Your task to perform on an android device: open app "DoorDash - Dasher" (install if not already installed) and enter user name: "resistor@inbox.com" and password: "cholera" Image 0: 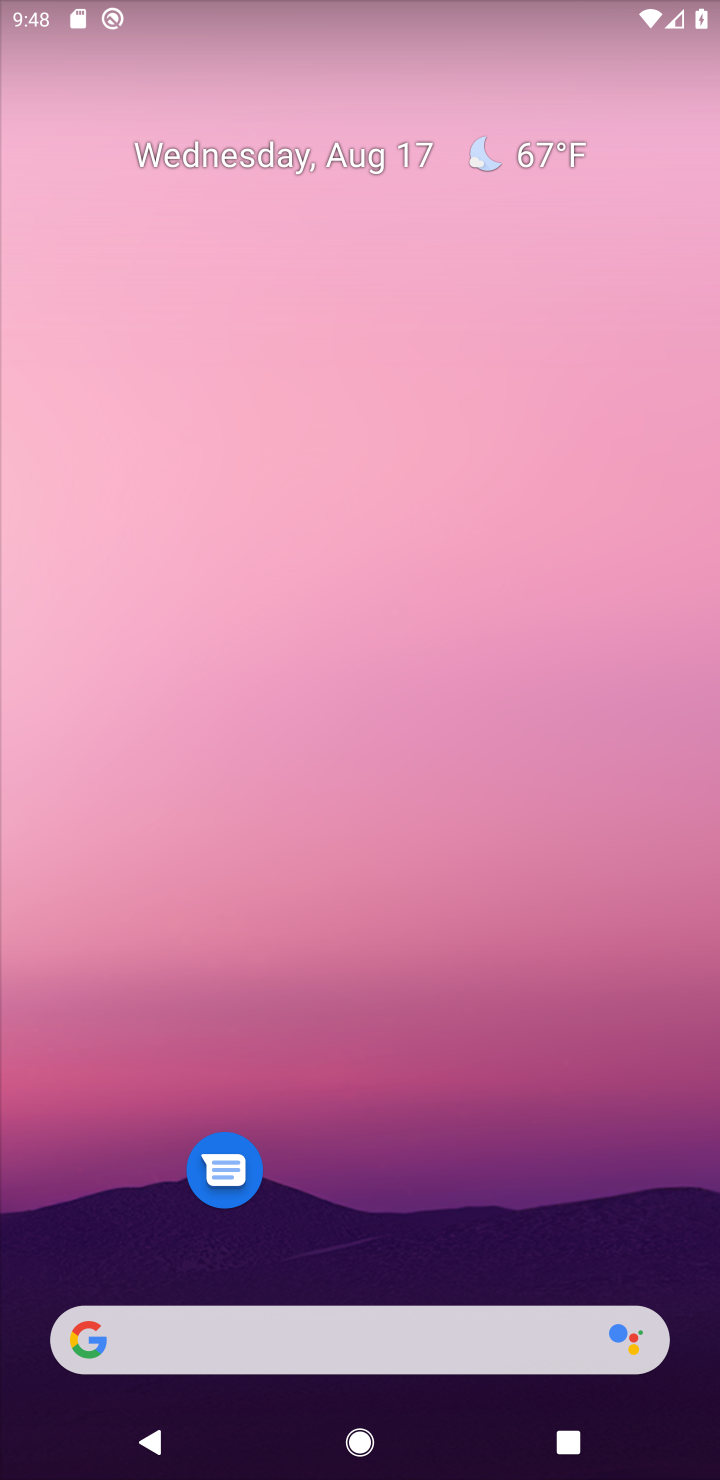
Step 0: drag from (306, 1287) to (302, 100)
Your task to perform on an android device: open app "DoorDash - Dasher" (install if not already installed) and enter user name: "resistor@inbox.com" and password: "cholera" Image 1: 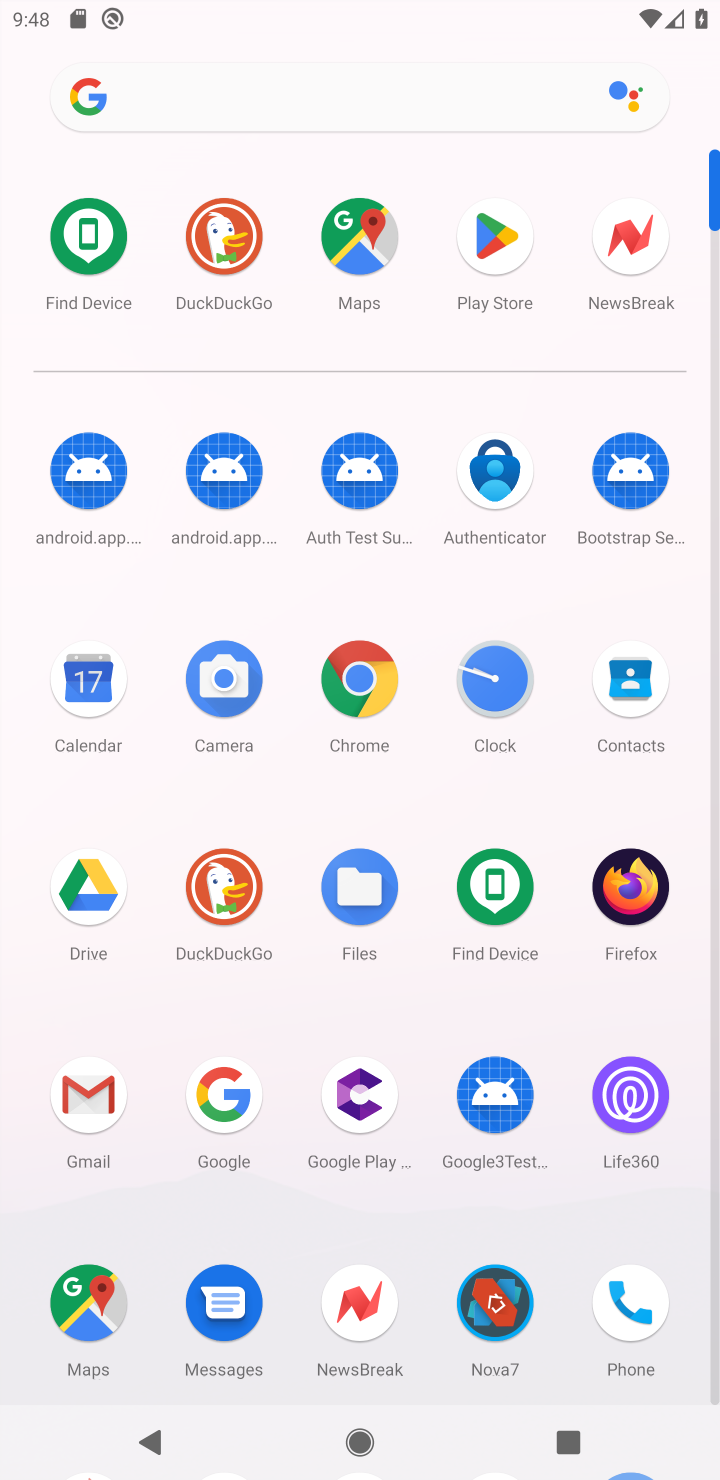
Step 1: click (485, 248)
Your task to perform on an android device: open app "DoorDash - Dasher" (install if not already installed) and enter user name: "resistor@inbox.com" and password: "cholera" Image 2: 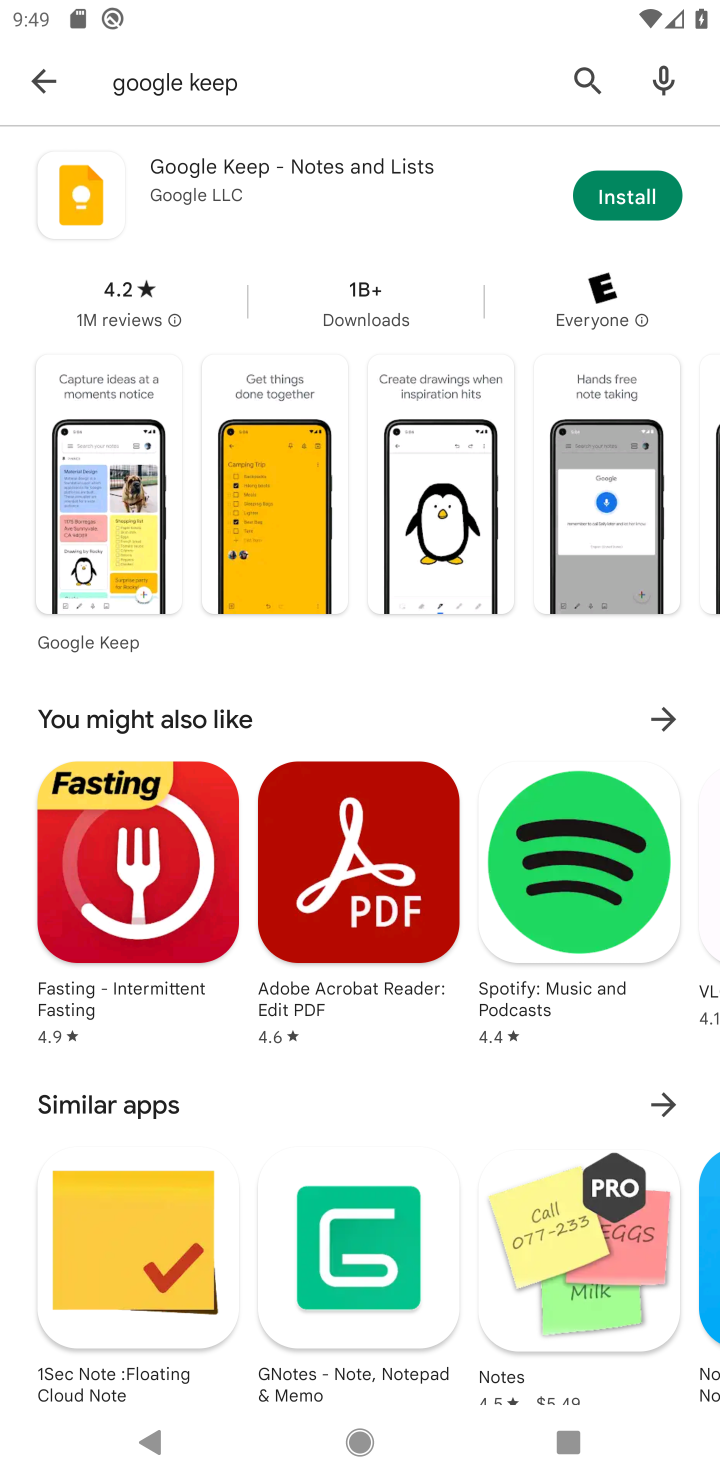
Step 2: click (29, 80)
Your task to perform on an android device: open app "DoorDash - Dasher" (install if not already installed) and enter user name: "resistor@inbox.com" and password: "cholera" Image 3: 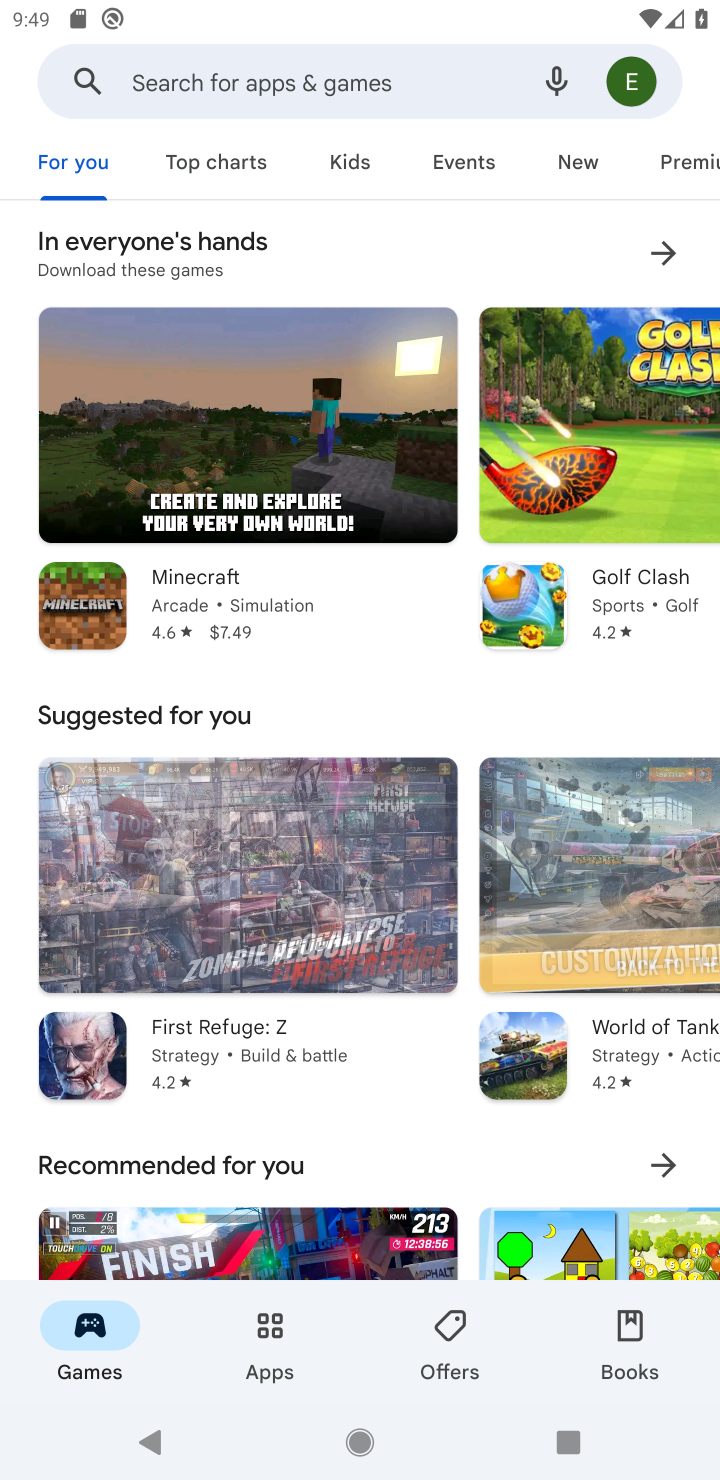
Step 3: click (156, 74)
Your task to perform on an android device: open app "DoorDash - Dasher" (install if not already installed) and enter user name: "resistor@inbox.com" and password: "cholera" Image 4: 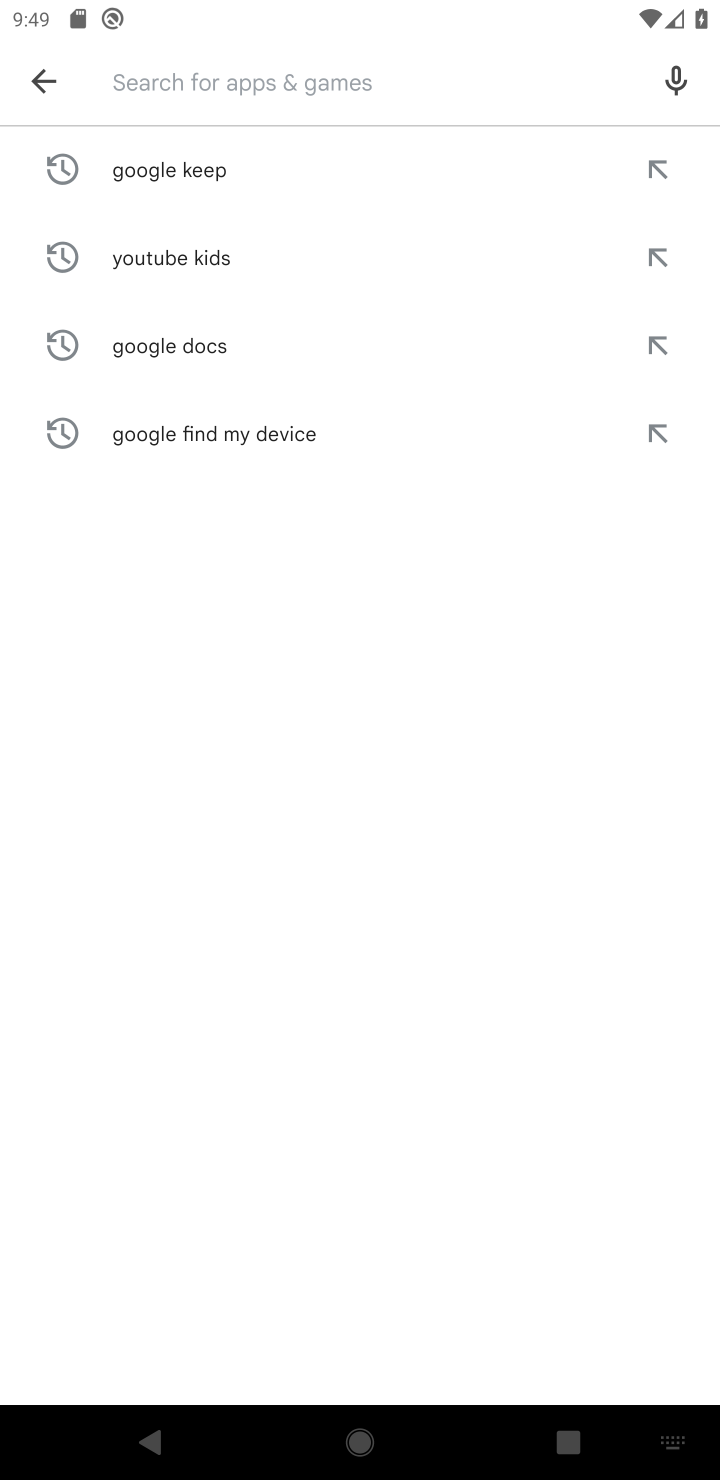
Step 4: type "DoorDash - Dasher"
Your task to perform on an android device: open app "DoorDash - Dasher" (install if not already installed) and enter user name: "resistor@inbox.com" and password: "cholera" Image 5: 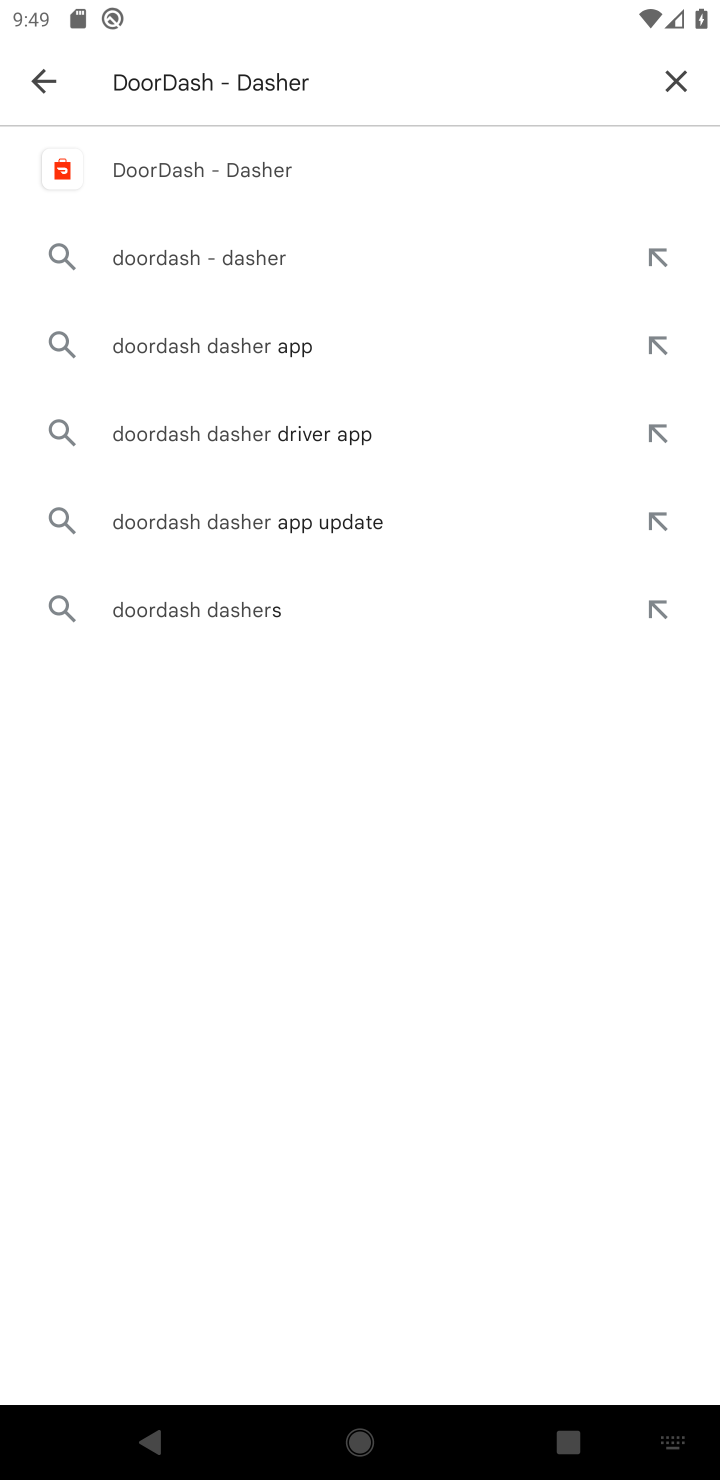
Step 5: click (153, 163)
Your task to perform on an android device: open app "DoorDash - Dasher" (install if not already installed) and enter user name: "resistor@inbox.com" and password: "cholera" Image 6: 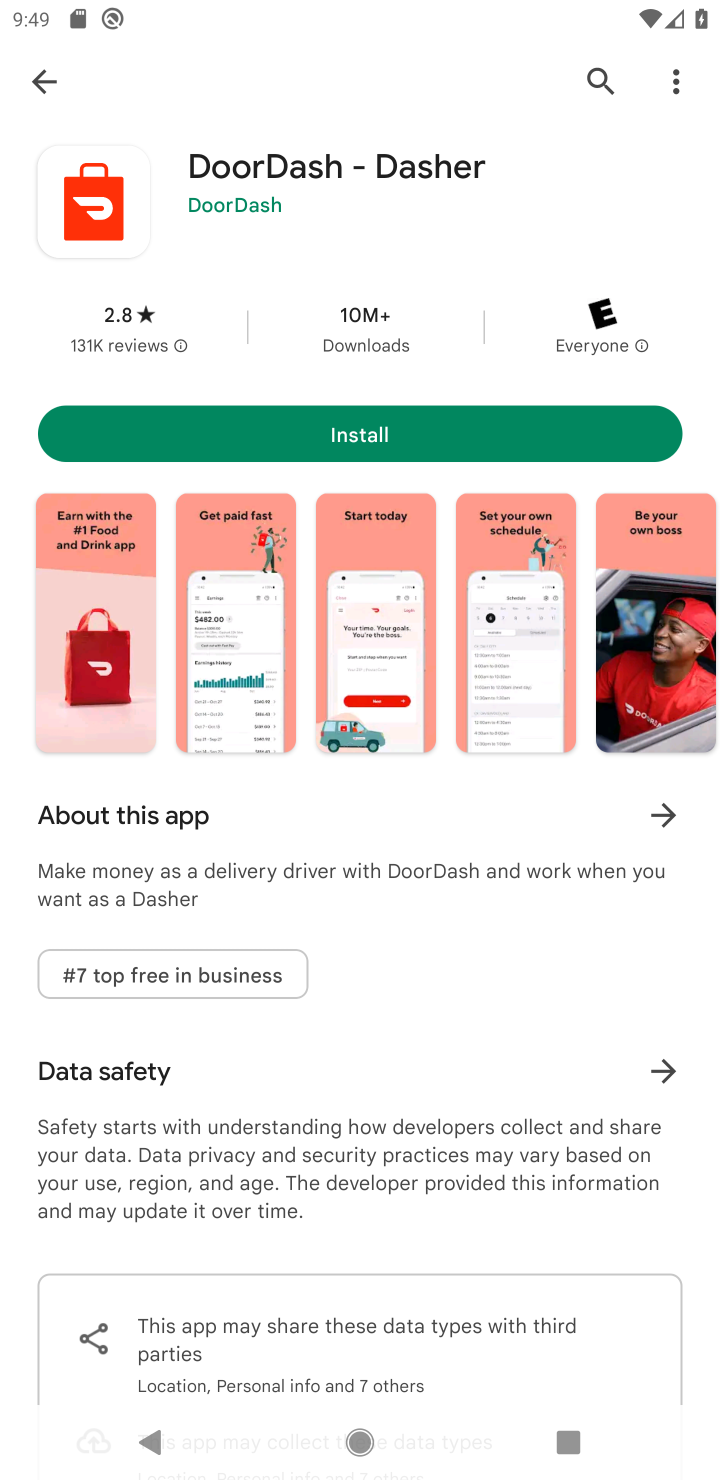
Step 6: click (335, 415)
Your task to perform on an android device: open app "DoorDash - Dasher" (install if not already installed) and enter user name: "resistor@inbox.com" and password: "cholera" Image 7: 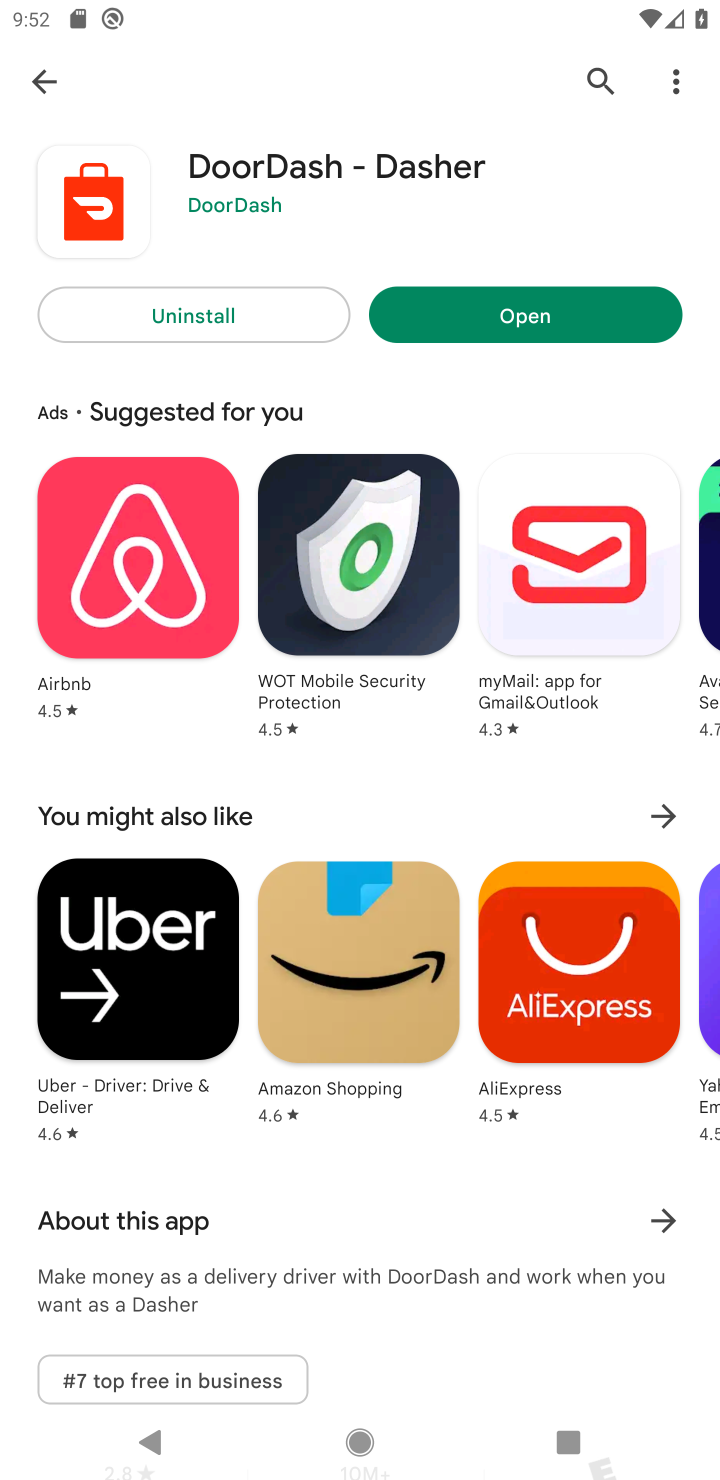
Step 7: click (461, 293)
Your task to perform on an android device: open app "DoorDash - Dasher" (install if not already installed) and enter user name: "resistor@inbox.com" and password: "cholera" Image 8: 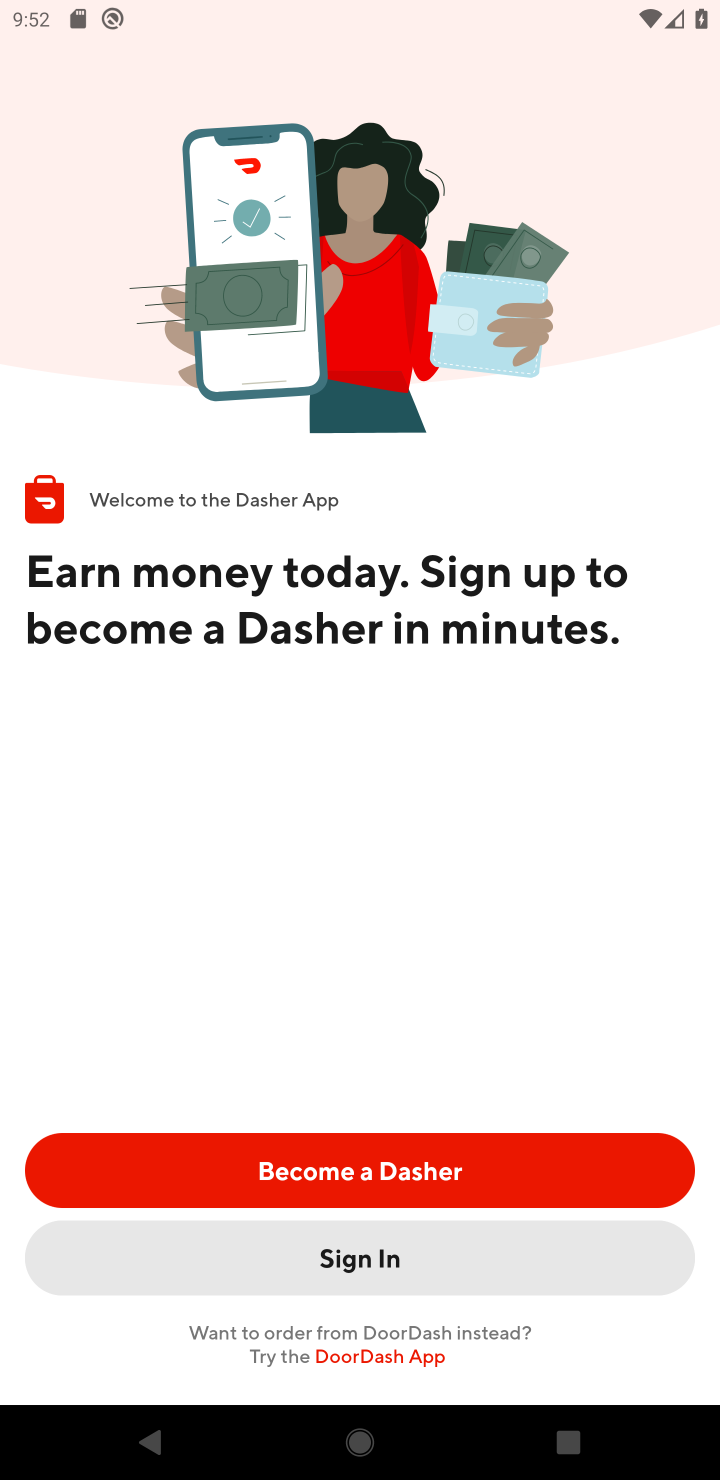
Step 8: click (318, 1261)
Your task to perform on an android device: open app "DoorDash - Dasher" (install if not already installed) and enter user name: "resistor@inbox.com" and password: "cholera" Image 9: 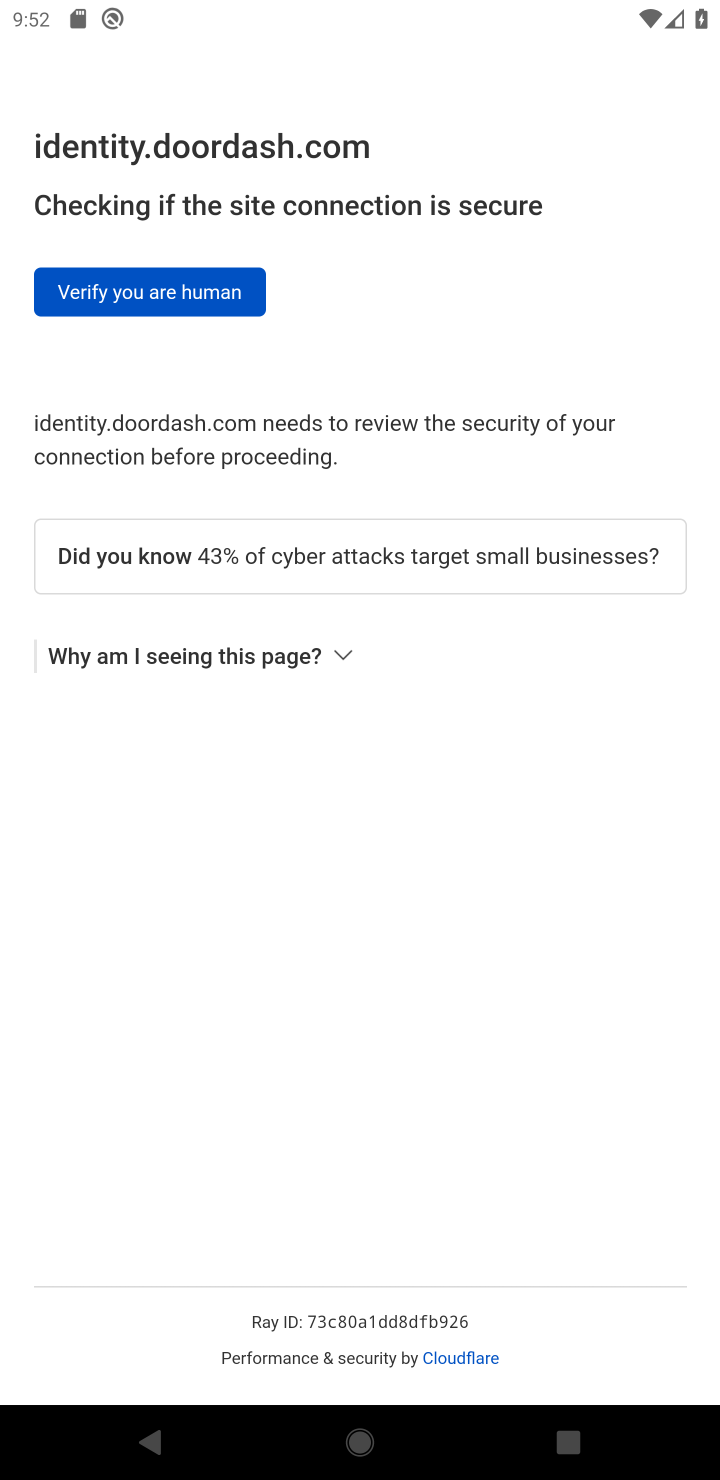
Step 9: task complete